Your task to perform on an android device: Play the last video I watched on Youtube Image 0: 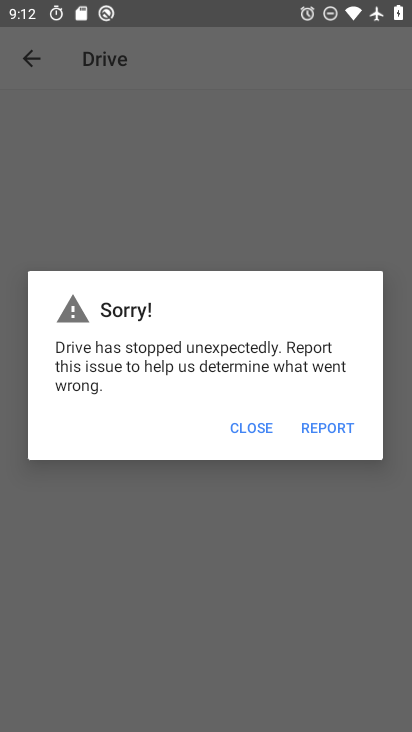
Step 0: press home button
Your task to perform on an android device: Play the last video I watched on Youtube Image 1: 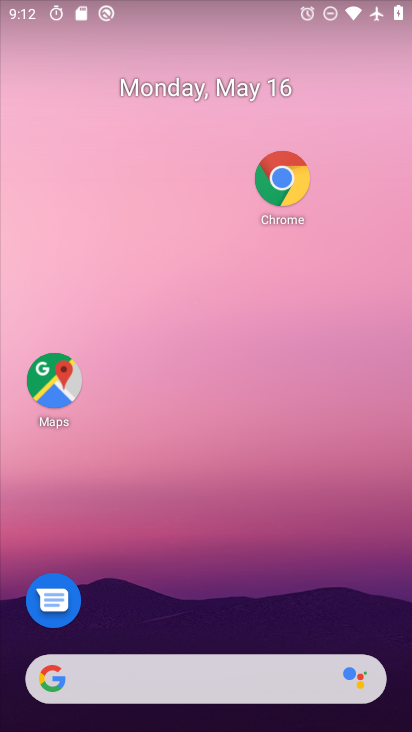
Step 1: drag from (181, 672) to (282, 178)
Your task to perform on an android device: Play the last video I watched on Youtube Image 2: 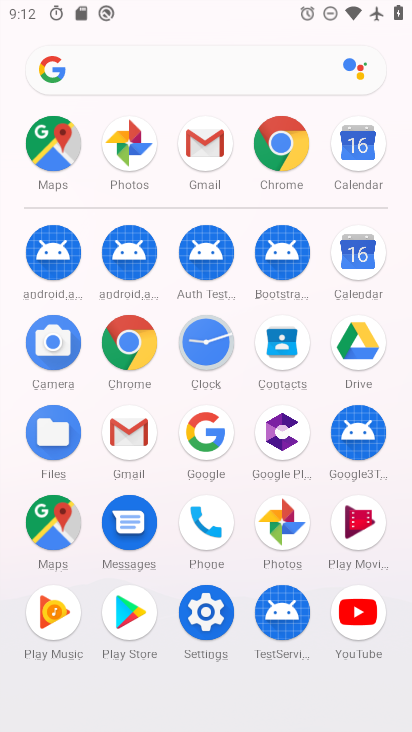
Step 2: click (358, 619)
Your task to perform on an android device: Play the last video I watched on Youtube Image 3: 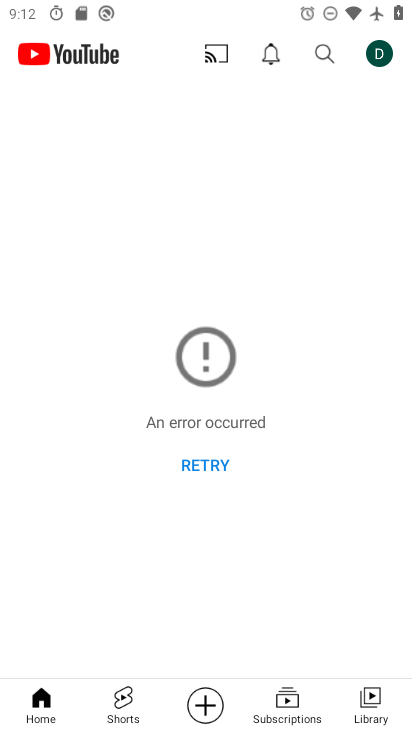
Step 3: click (379, 702)
Your task to perform on an android device: Play the last video I watched on Youtube Image 4: 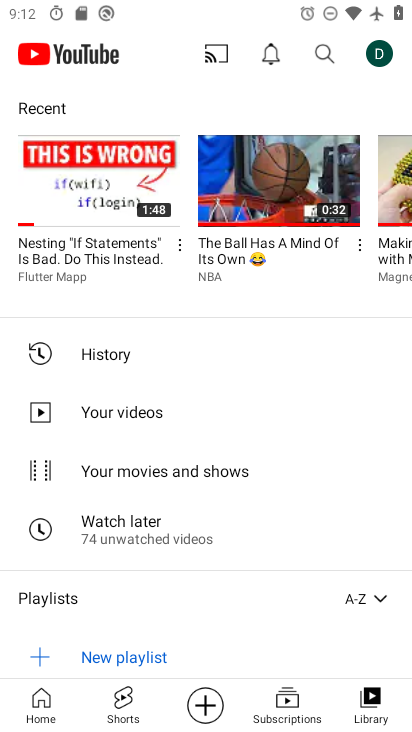
Step 4: click (105, 193)
Your task to perform on an android device: Play the last video I watched on Youtube Image 5: 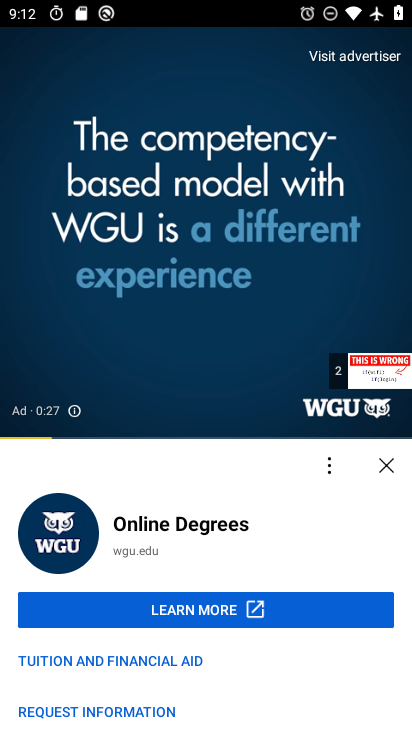
Step 5: click (386, 469)
Your task to perform on an android device: Play the last video I watched on Youtube Image 6: 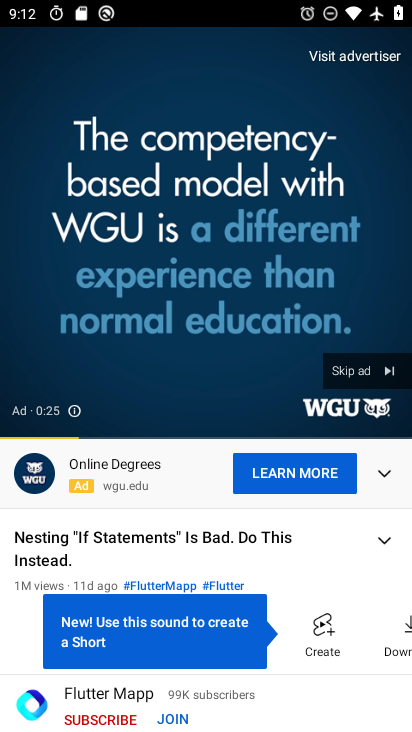
Step 6: click (347, 368)
Your task to perform on an android device: Play the last video I watched on Youtube Image 7: 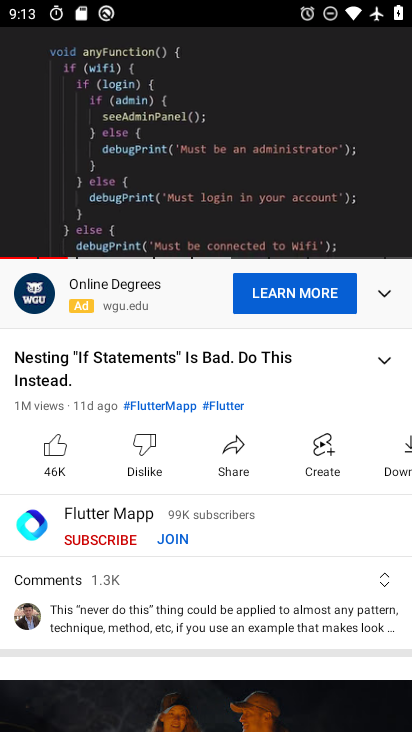
Step 7: click (215, 100)
Your task to perform on an android device: Play the last video I watched on Youtube Image 8: 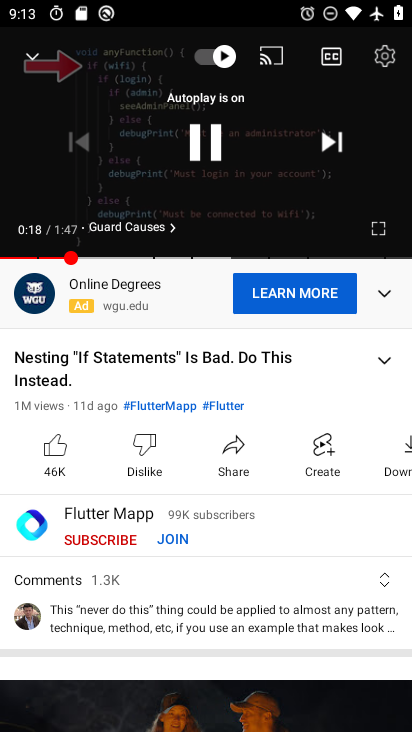
Step 8: click (207, 138)
Your task to perform on an android device: Play the last video I watched on Youtube Image 9: 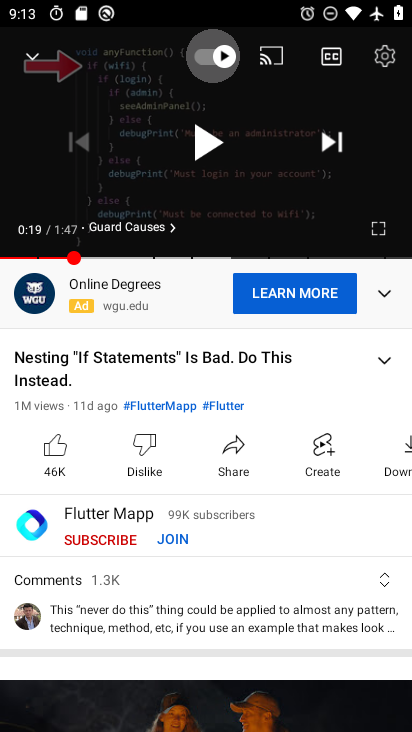
Step 9: task complete